Your task to perform on an android device: Open accessibility settings Image 0: 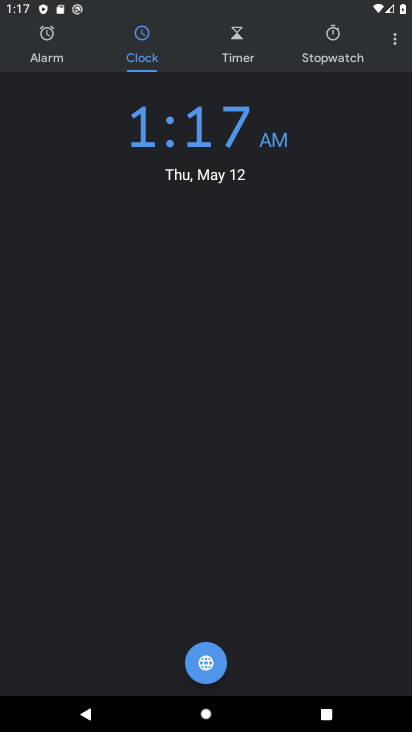
Step 0: press home button
Your task to perform on an android device: Open accessibility settings Image 1: 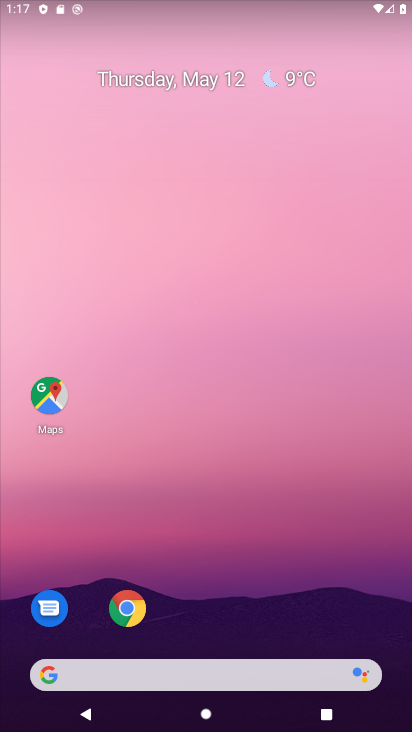
Step 1: drag from (264, 633) to (147, 140)
Your task to perform on an android device: Open accessibility settings Image 2: 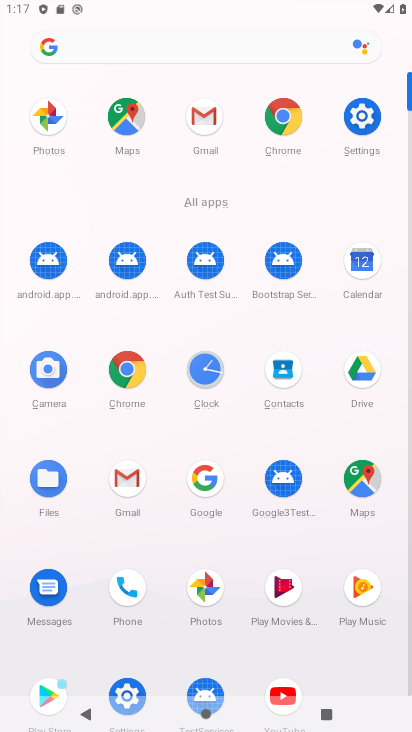
Step 2: click (355, 120)
Your task to perform on an android device: Open accessibility settings Image 3: 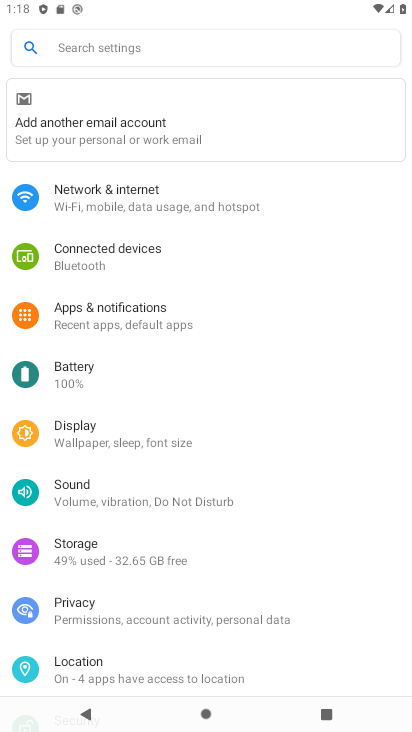
Step 3: drag from (311, 607) to (345, 40)
Your task to perform on an android device: Open accessibility settings Image 4: 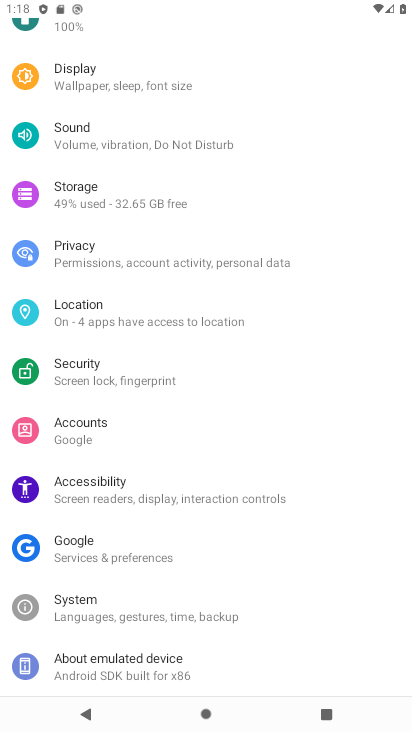
Step 4: click (99, 481)
Your task to perform on an android device: Open accessibility settings Image 5: 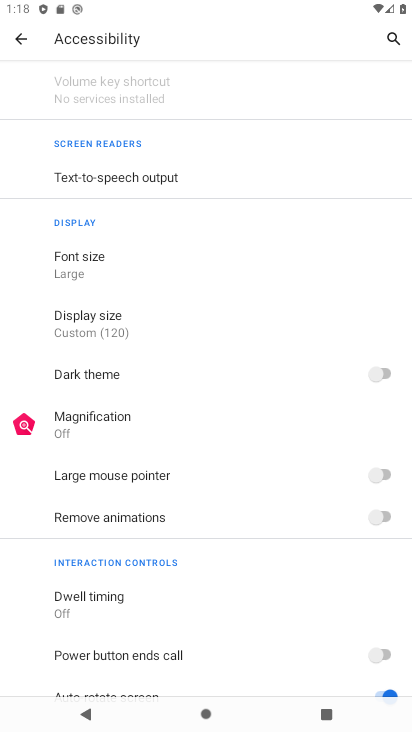
Step 5: task complete